Your task to perform on an android device: Open Maps and search for coffee Image 0: 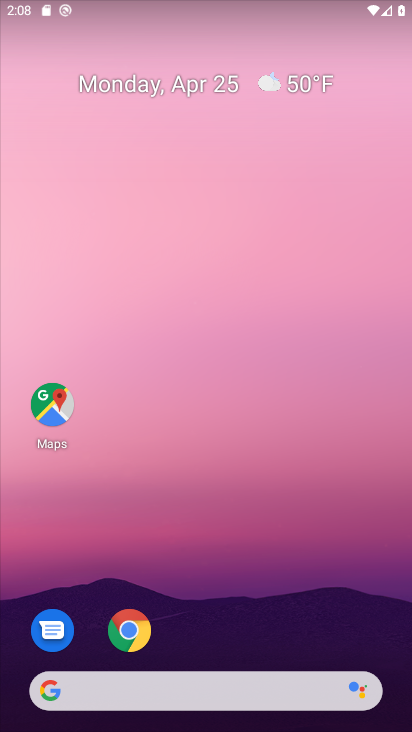
Step 0: click (46, 396)
Your task to perform on an android device: Open Maps and search for coffee Image 1: 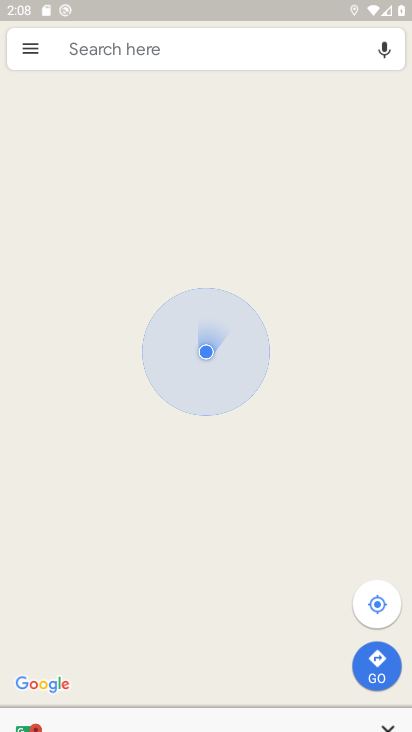
Step 1: click (209, 30)
Your task to perform on an android device: Open Maps and search for coffee Image 2: 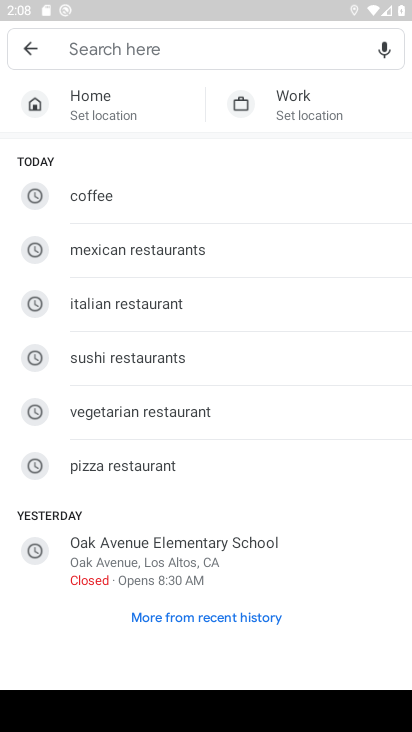
Step 2: type "coffee"
Your task to perform on an android device: Open Maps and search for coffee Image 3: 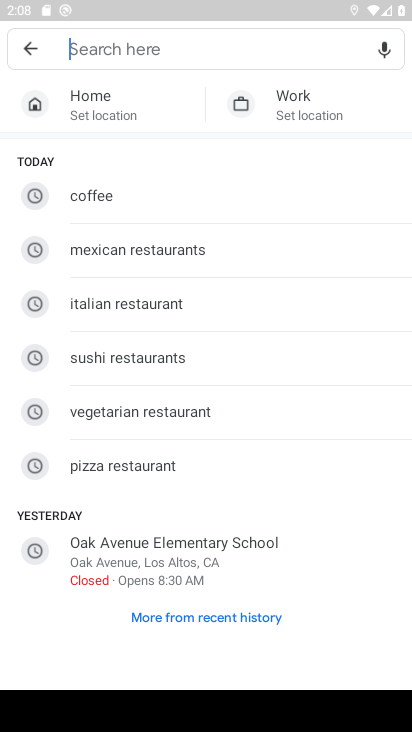
Step 3: click (113, 209)
Your task to perform on an android device: Open Maps and search for coffee Image 4: 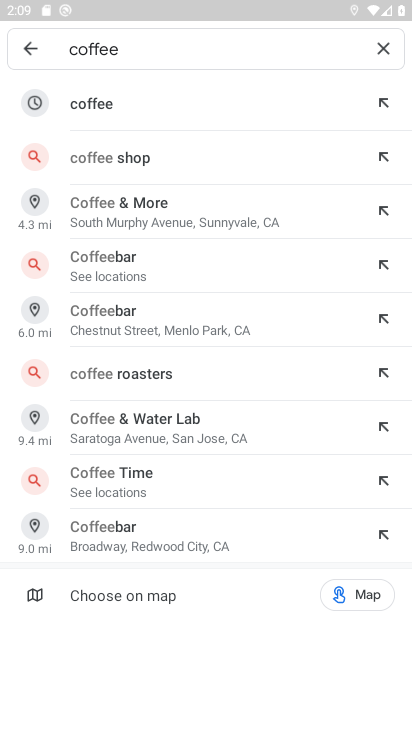
Step 4: click (115, 112)
Your task to perform on an android device: Open Maps and search for coffee Image 5: 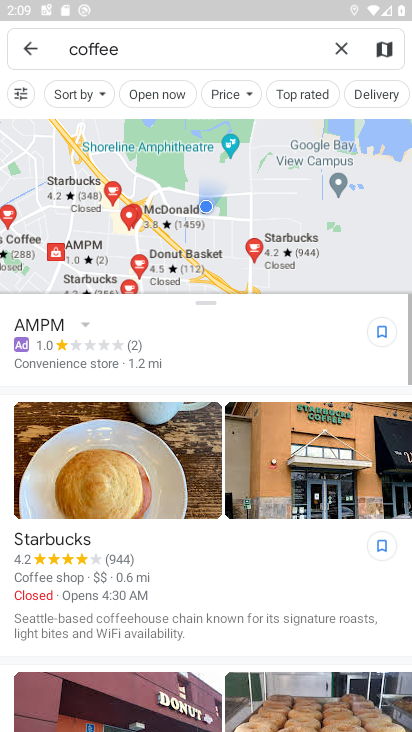
Step 5: task complete